Your task to perform on an android device: Go to Google maps Image 0: 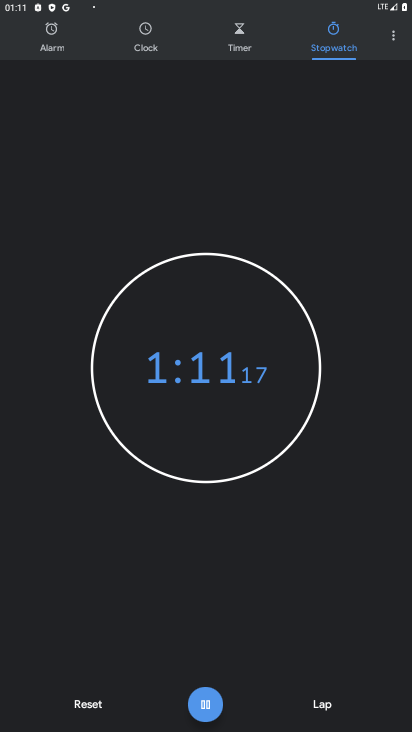
Step 0: drag from (186, 515) to (215, 139)
Your task to perform on an android device: Go to Google maps Image 1: 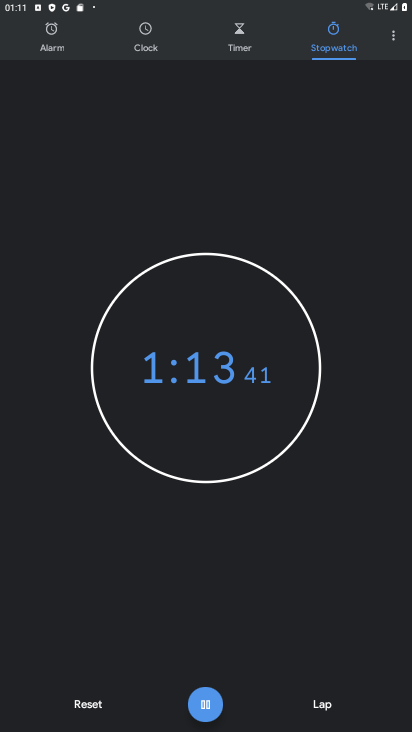
Step 1: press home button
Your task to perform on an android device: Go to Google maps Image 2: 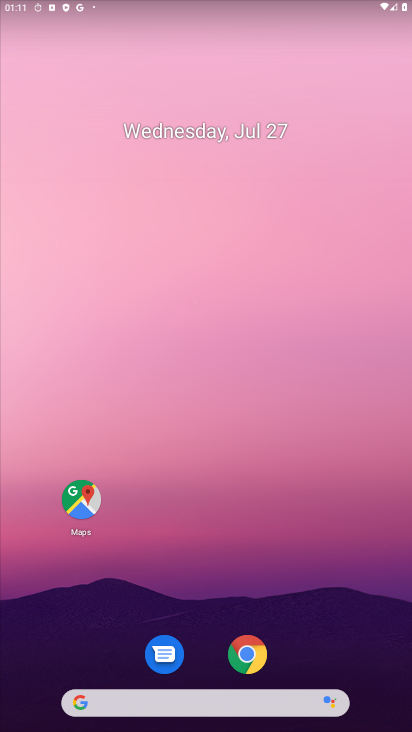
Step 2: drag from (266, 652) to (338, 9)
Your task to perform on an android device: Go to Google maps Image 3: 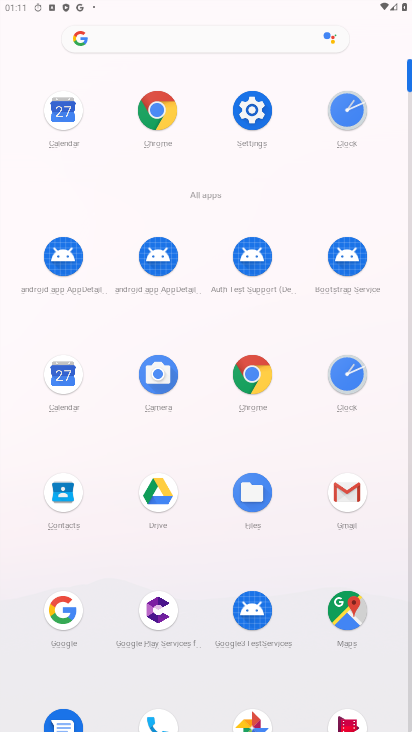
Step 3: click (340, 600)
Your task to perform on an android device: Go to Google maps Image 4: 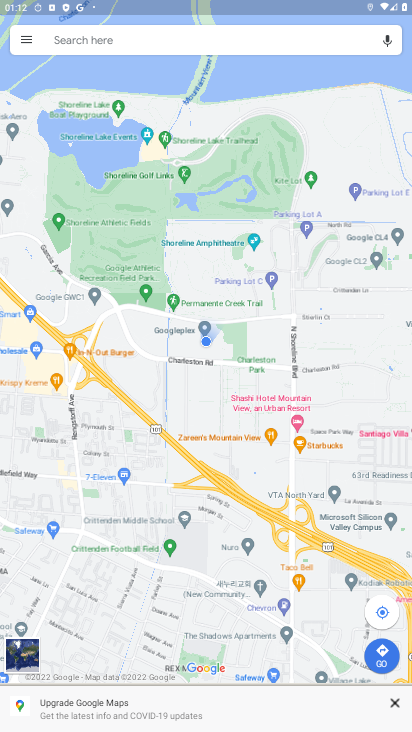
Step 4: task complete